Your task to perform on an android device: clear all cookies in the chrome app Image 0: 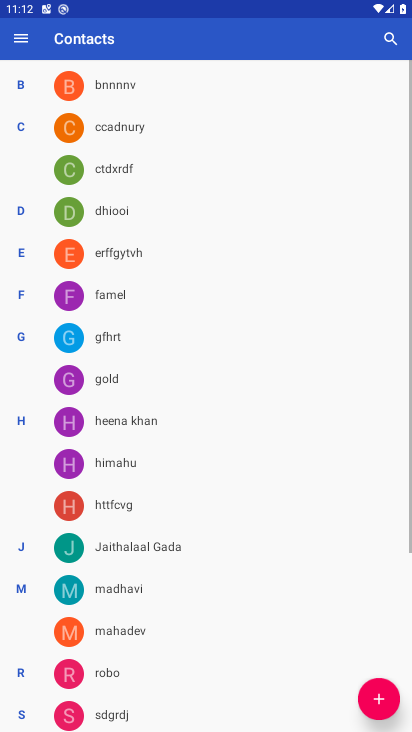
Step 0: press home button
Your task to perform on an android device: clear all cookies in the chrome app Image 1: 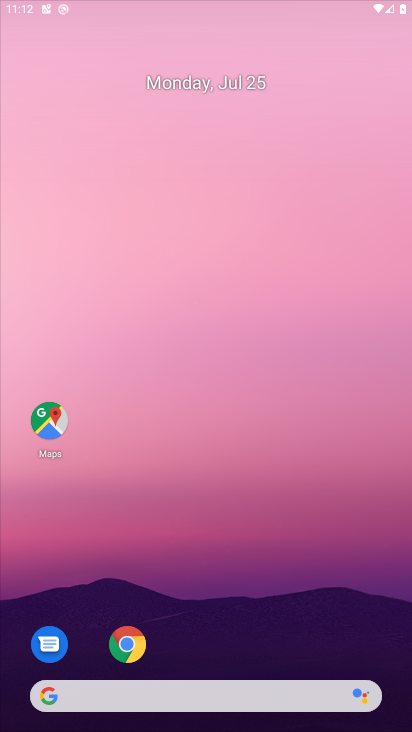
Step 1: drag from (208, 691) to (229, 154)
Your task to perform on an android device: clear all cookies in the chrome app Image 2: 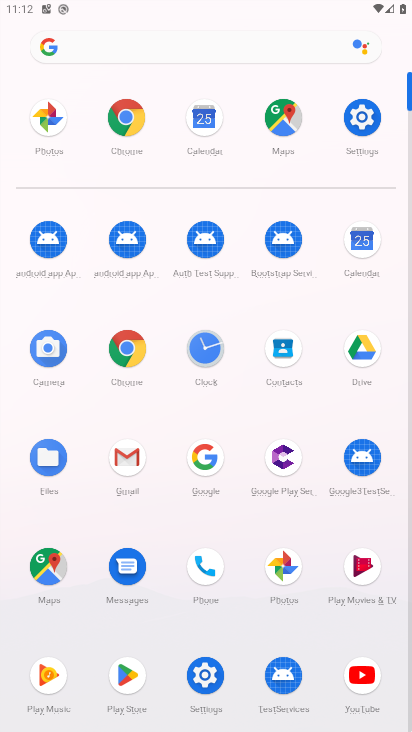
Step 2: click (150, 350)
Your task to perform on an android device: clear all cookies in the chrome app Image 3: 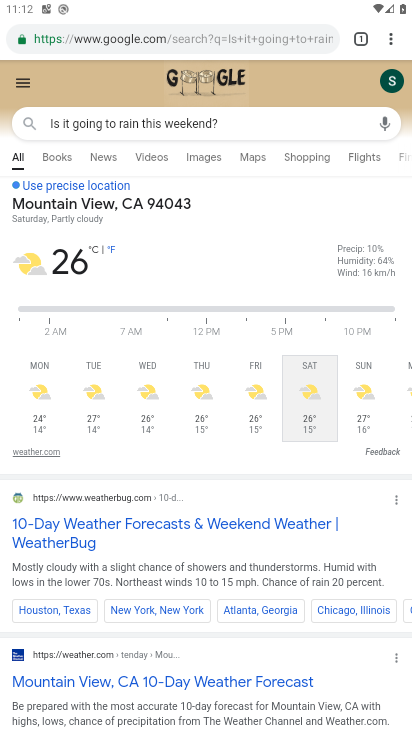
Step 3: drag from (392, 34) to (240, 434)
Your task to perform on an android device: clear all cookies in the chrome app Image 4: 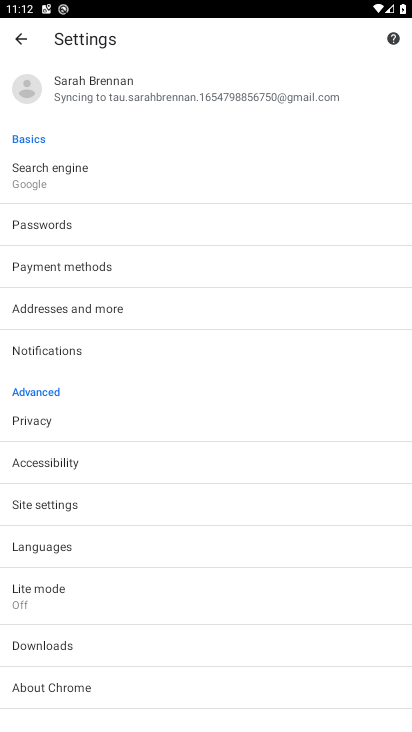
Step 4: click (158, 406)
Your task to perform on an android device: clear all cookies in the chrome app Image 5: 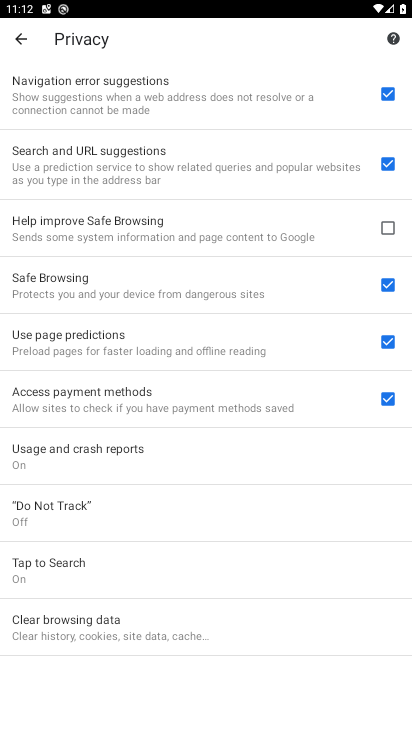
Step 5: click (107, 608)
Your task to perform on an android device: clear all cookies in the chrome app Image 6: 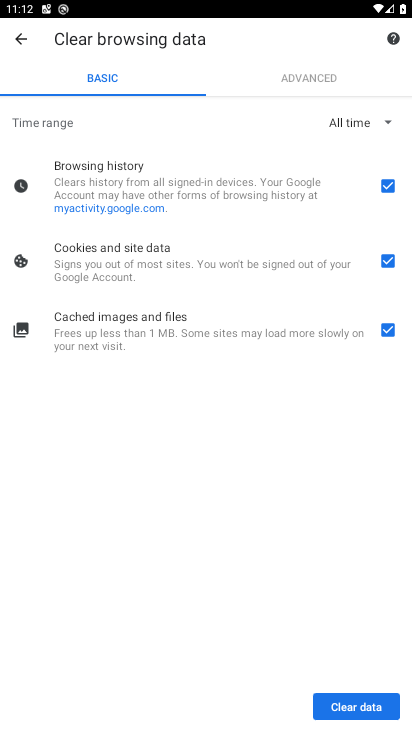
Step 6: click (340, 702)
Your task to perform on an android device: clear all cookies in the chrome app Image 7: 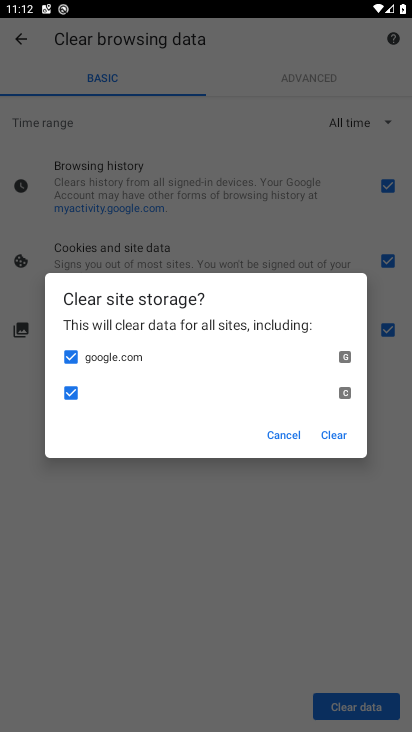
Step 7: click (336, 429)
Your task to perform on an android device: clear all cookies in the chrome app Image 8: 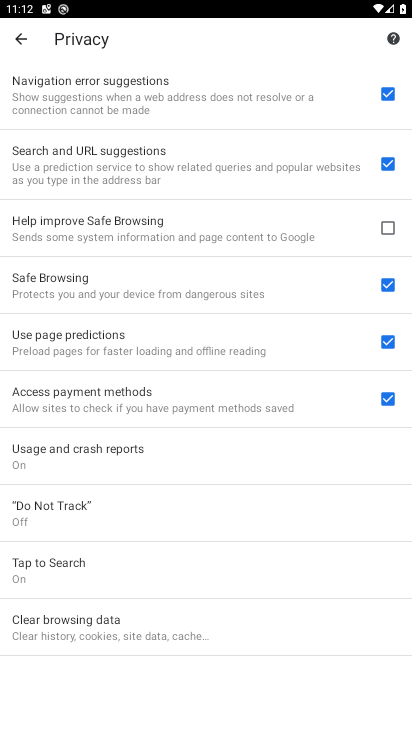
Step 8: task complete